Your task to perform on an android device: open wifi settings Image 0: 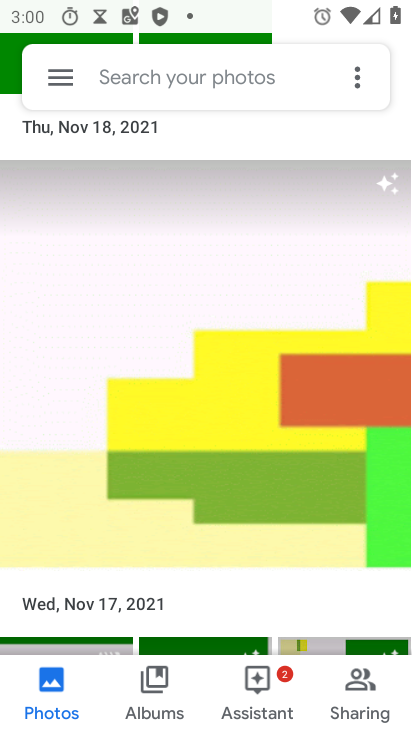
Step 0: press home button
Your task to perform on an android device: open wifi settings Image 1: 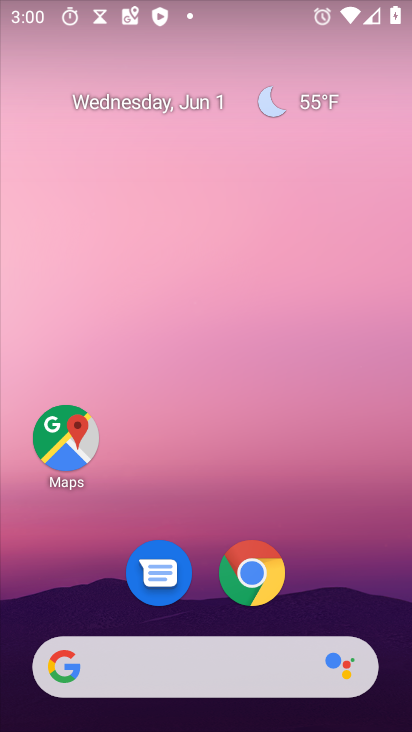
Step 1: drag from (351, 578) to (328, 51)
Your task to perform on an android device: open wifi settings Image 2: 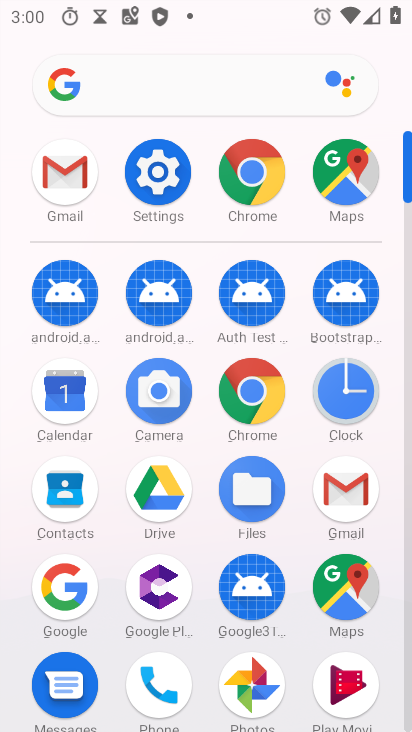
Step 2: click (138, 195)
Your task to perform on an android device: open wifi settings Image 3: 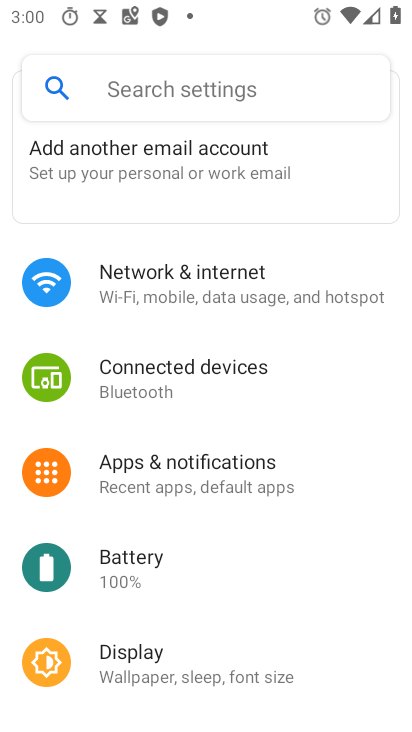
Step 3: click (186, 270)
Your task to perform on an android device: open wifi settings Image 4: 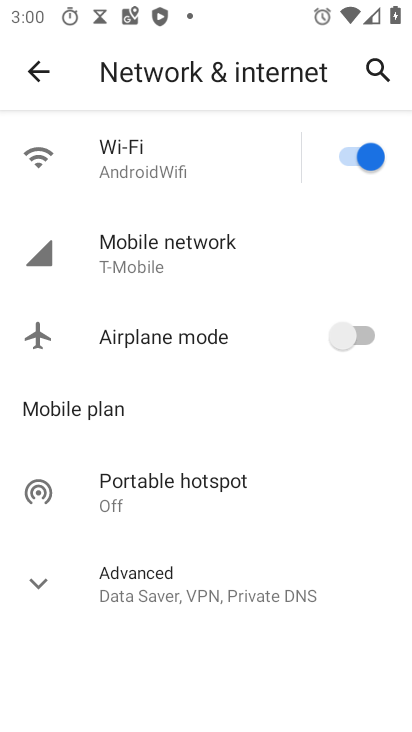
Step 4: task complete